Your task to perform on an android device: allow cookies in the chrome app Image 0: 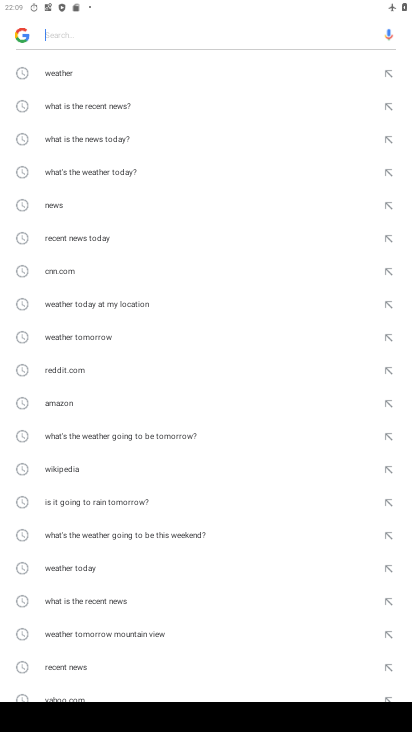
Step 0: press home button
Your task to perform on an android device: allow cookies in the chrome app Image 1: 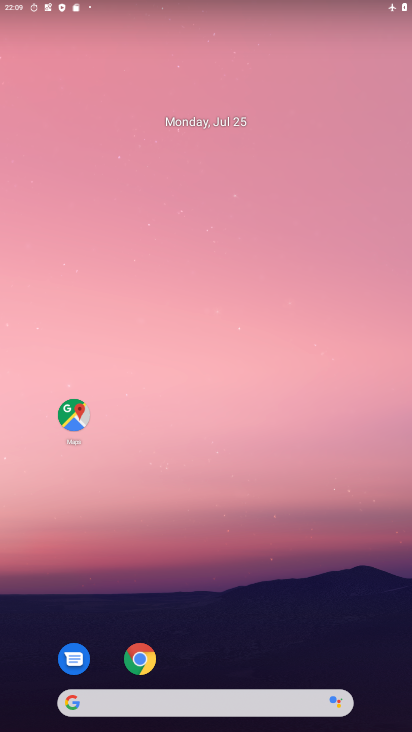
Step 1: click (147, 658)
Your task to perform on an android device: allow cookies in the chrome app Image 2: 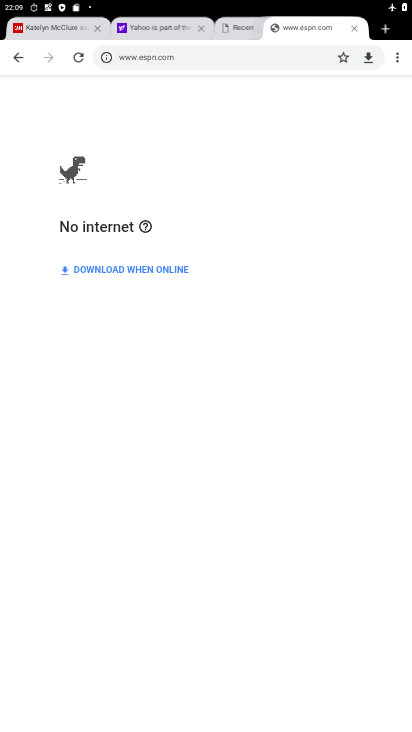
Step 2: click (394, 63)
Your task to perform on an android device: allow cookies in the chrome app Image 3: 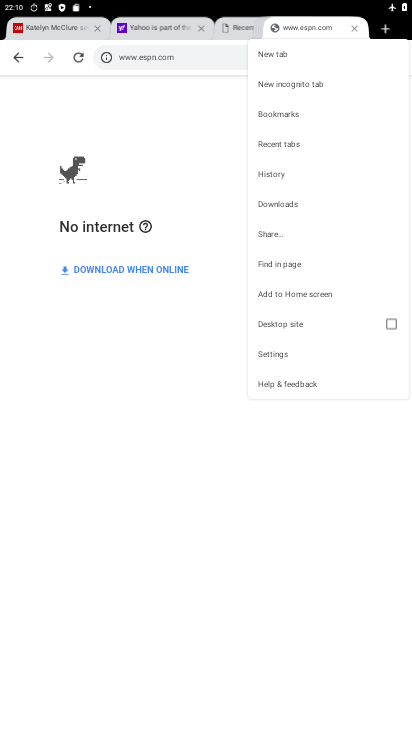
Step 3: click (273, 344)
Your task to perform on an android device: allow cookies in the chrome app Image 4: 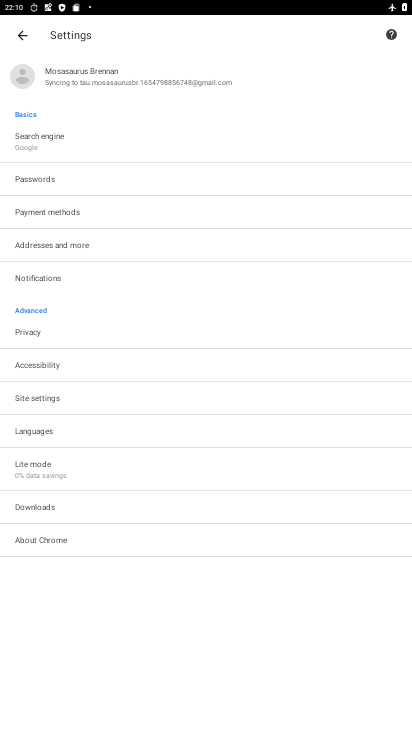
Step 4: click (77, 406)
Your task to perform on an android device: allow cookies in the chrome app Image 5: 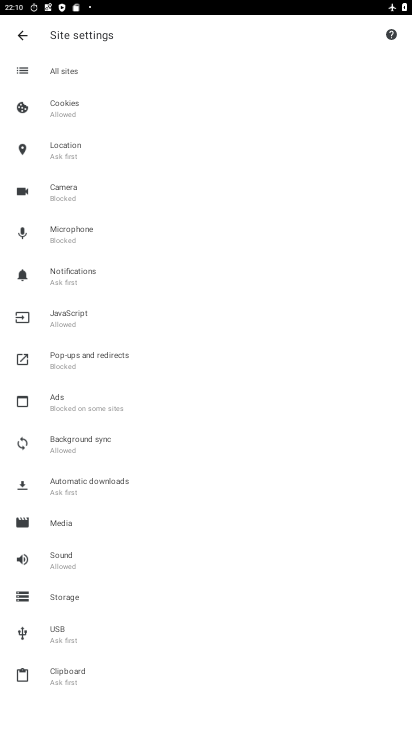
Step 5: click (109, 108)
Your task to perform on an android device: allow cookies in the chrome app Image 6: 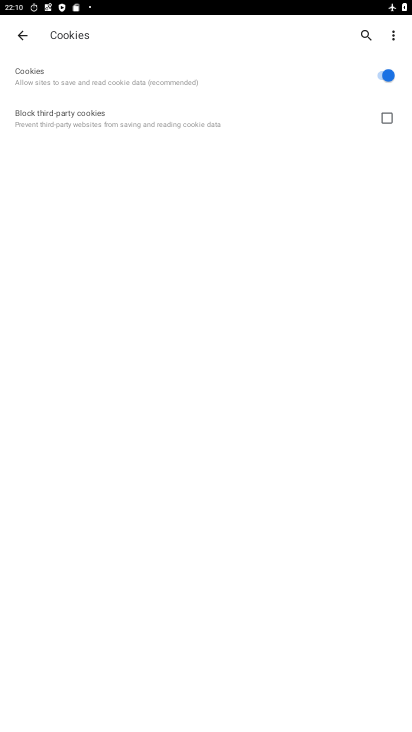
Step 6: task complete